Your task to perform on an android device: Open Yahoo.com Image 0: 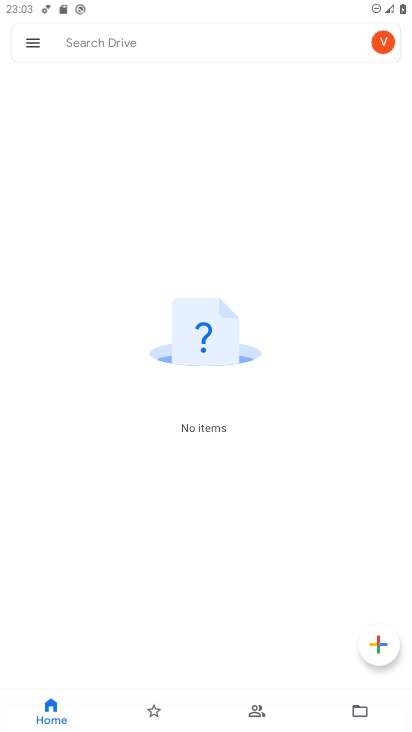
Step 0: press home button
Your task to perform on an android device: Open Yahoo.com Image 1: 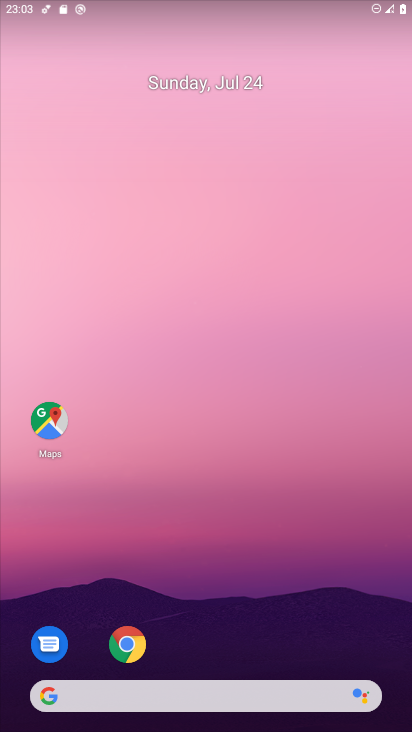
Step 1: click (125, 644)
Your task to perform on an android device: Open Yahoo.com Image 2: 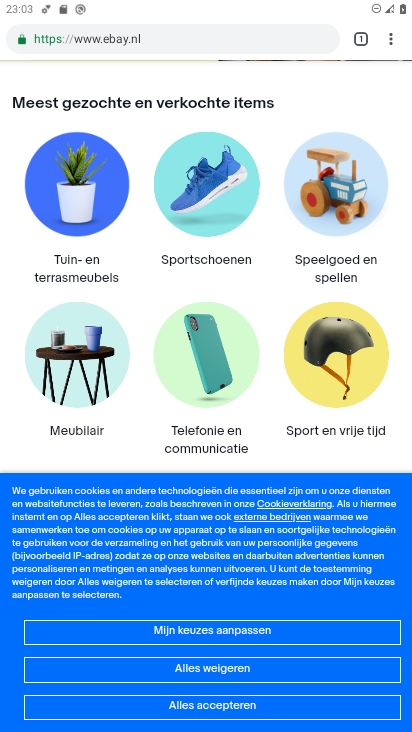
Step 2: click (172, 35)
Your task to perform on an android device: Open Yahoo.com Image 3: 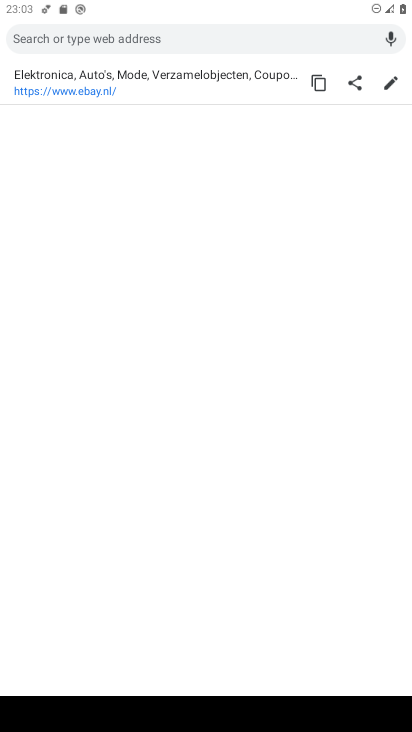
Step 3: type "yahoo.com"
Your task to perform on an android device: Open Yahoo.com Image 4: 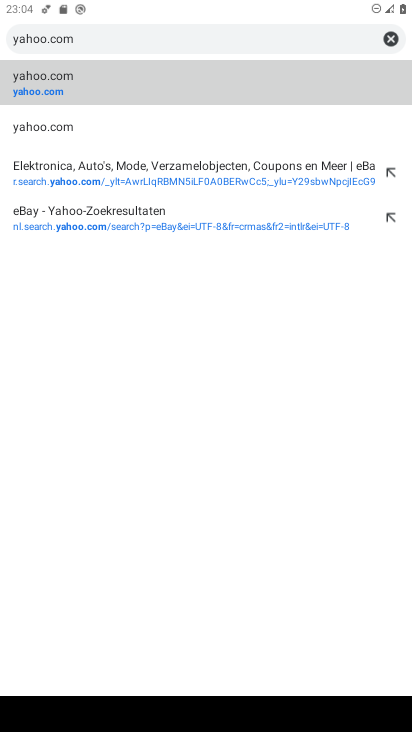
Step 4: click (35, 78)
Your task to perform on an android device: Open Yahoo.com Image 5: 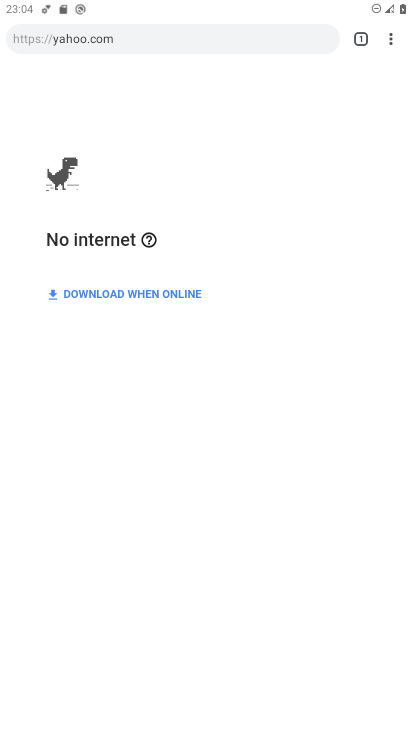
Step 5: task complete